Your task to perform on an android device: Go to Android settings Image 0: 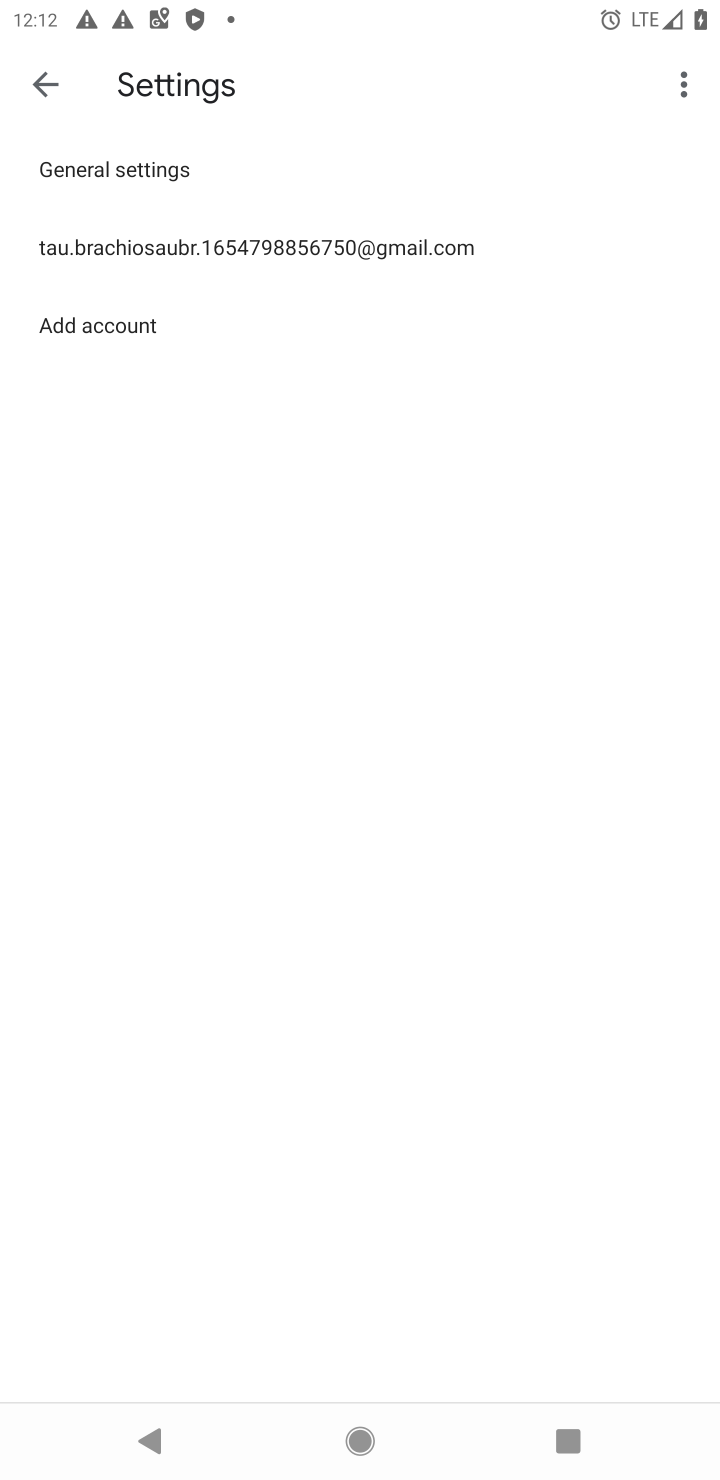
Step 0: press home button
Your task to perform on an android device: Go to Android settings Image 1: 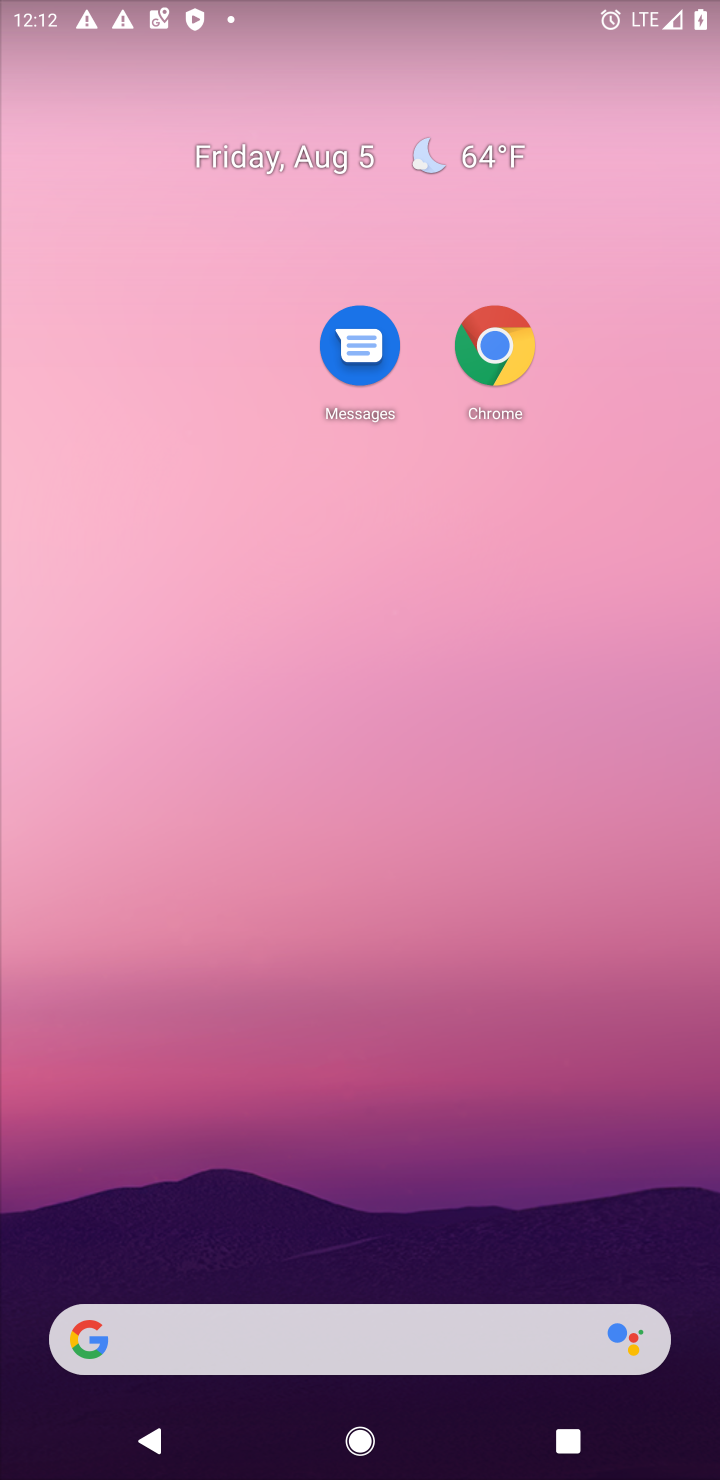
Step 1: drag from (313, 1195) to (311, 1)
Your task to perform on an android device: Go to Android settings Image 2: 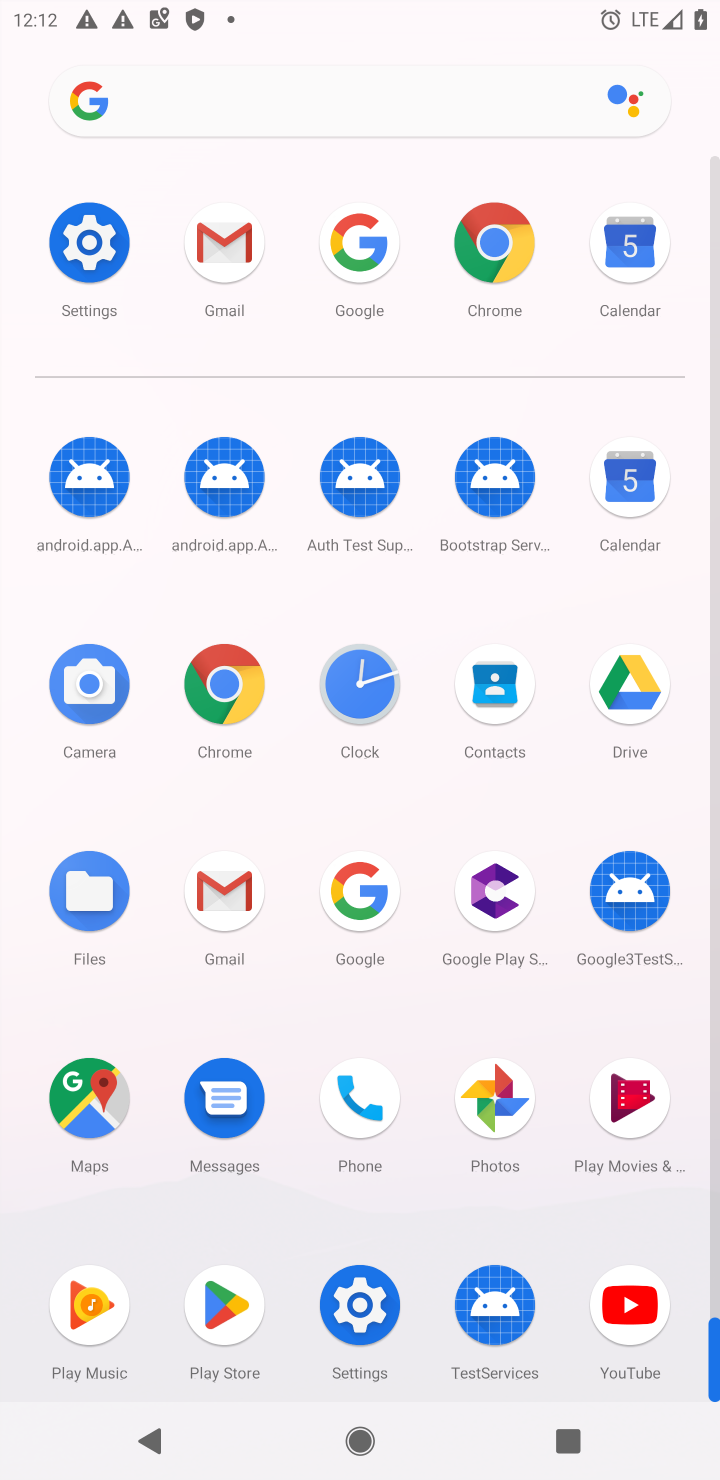
Step 2: click (90, 226)
Your task to perform on an android device: Go to Android settings Image 3: 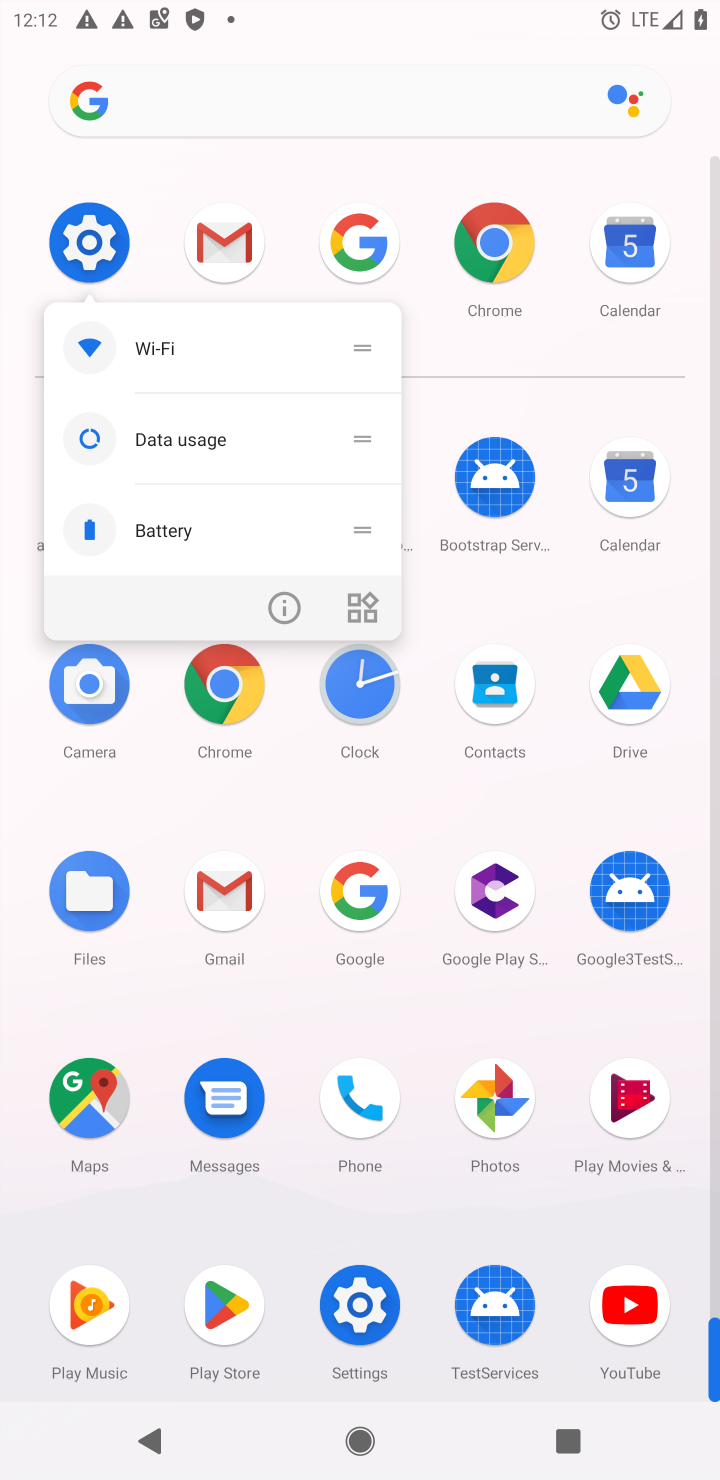
Step 3: click (68, 251)
Your task to perform on an android device: Go to Android settings Image 4: 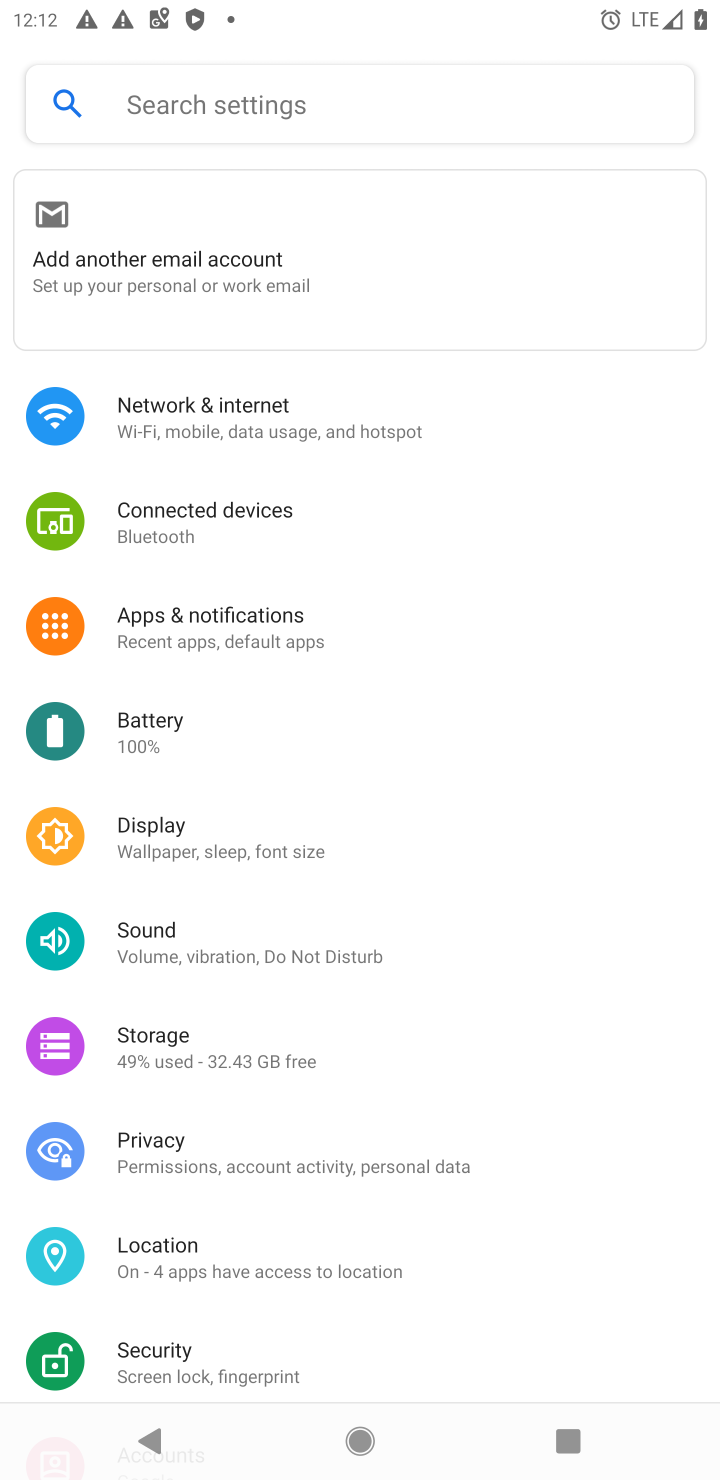
Step 4: task complete